Your task to perform on an android device: move a message to another label in the gmail app Image 0: 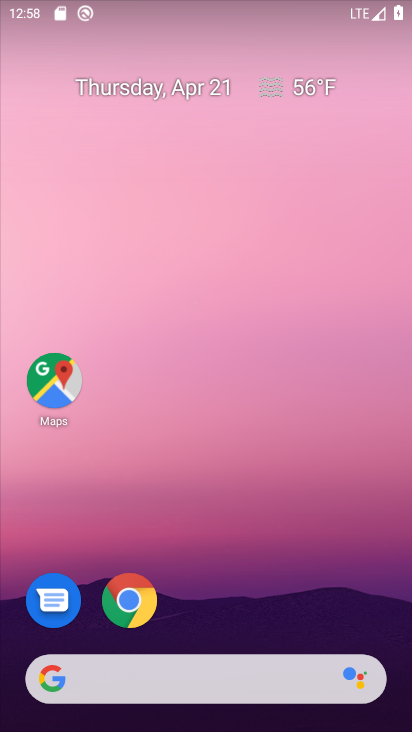
Step 0: drag from (257, 618) to (298, 143)
Your task to perform on an android device: move a message to another label in the gmail app Image 1: 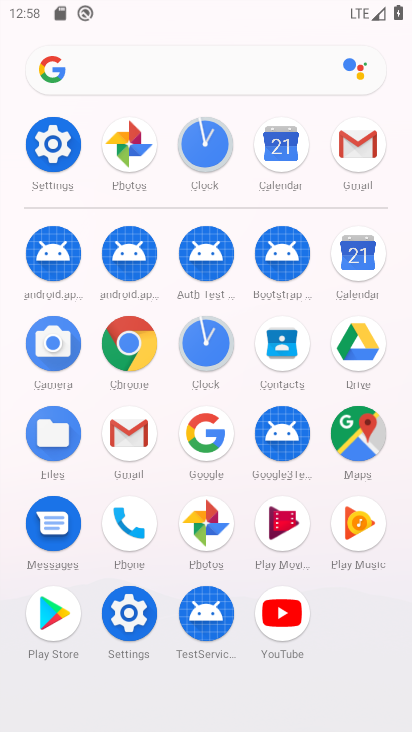
Step 1: click (360, 146)
Your task to perform on an android device: move a message to another label in the gmail app Image 2: 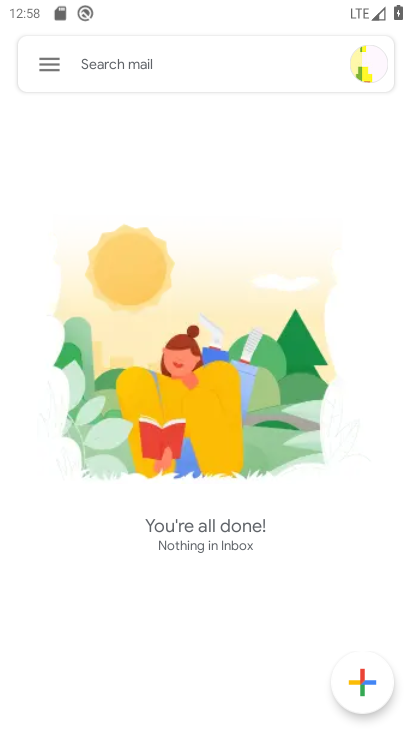
Step 2: click (55, 64)
Your task to perform on an android device: move a message to another label in the gmail app Image 3: 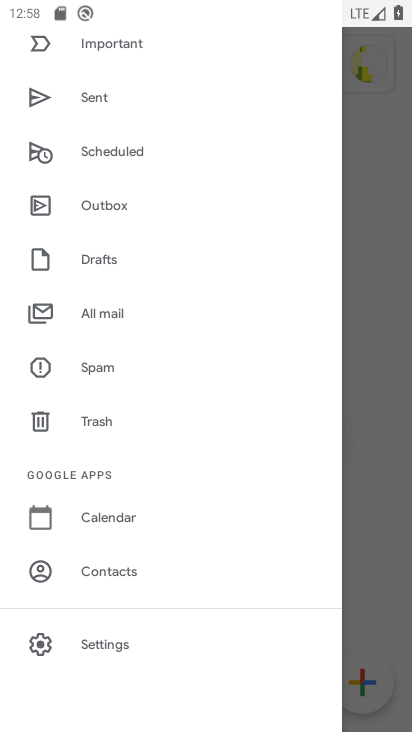
Step 3: click (112, 307)
Your task to perform on an android device: move a message to another label in the gmail app Image 4: 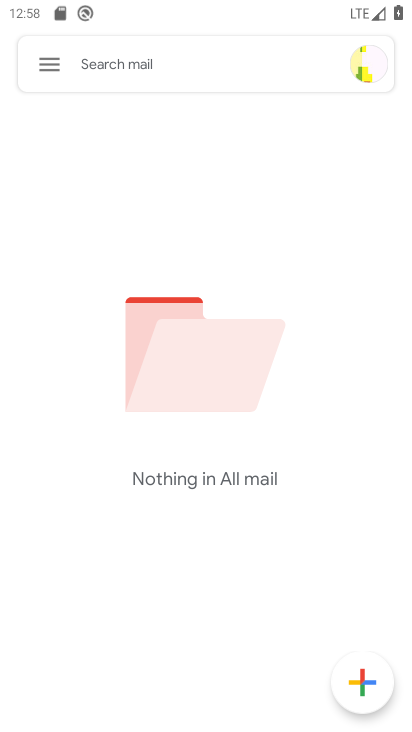
Step 4: task complete